Your task to perform on an android device: What's the weather today? Image 0: 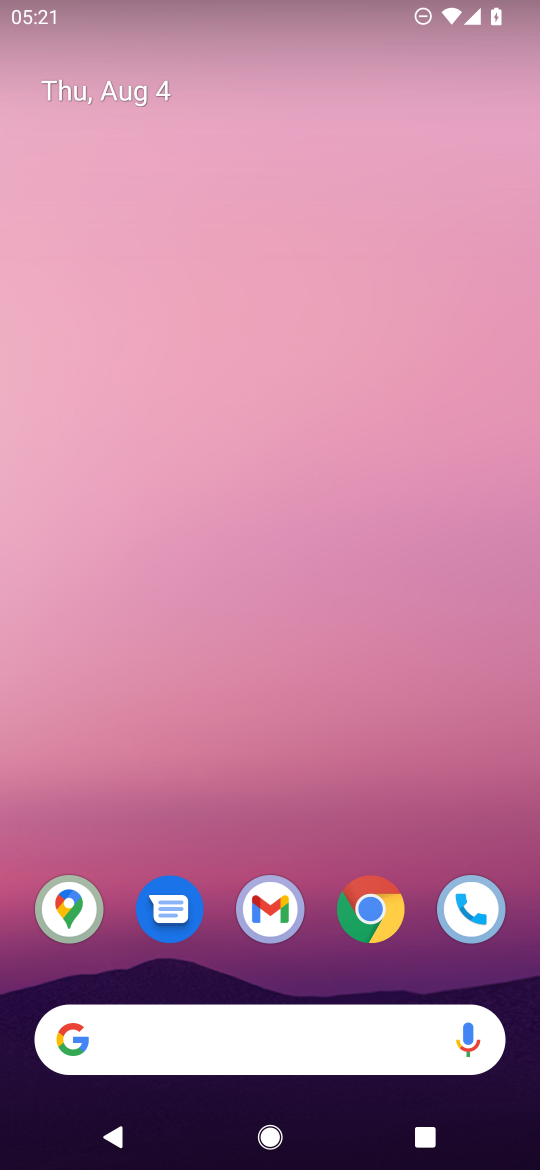
Step 0: press home button
Your task to perform on an android device: What's the weather today? Image 1: 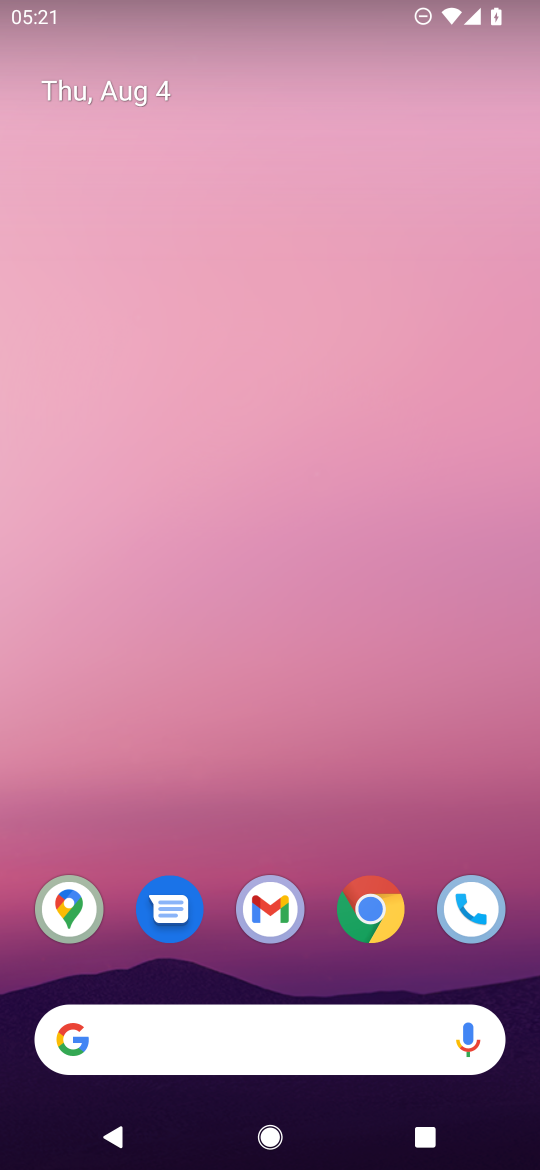
Step 1: click (75, 1040)
Your task to perform on an android device: What's the weather today? Image 2: 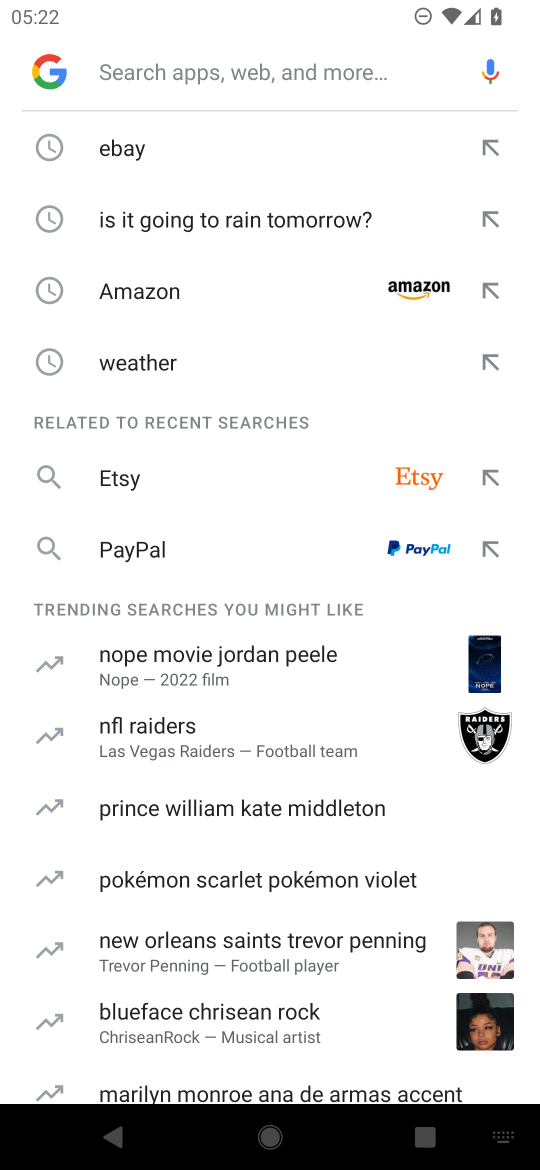
Step 2: type "weather today?"
Your task to perform on an android device: What's the weather today? Image 3: 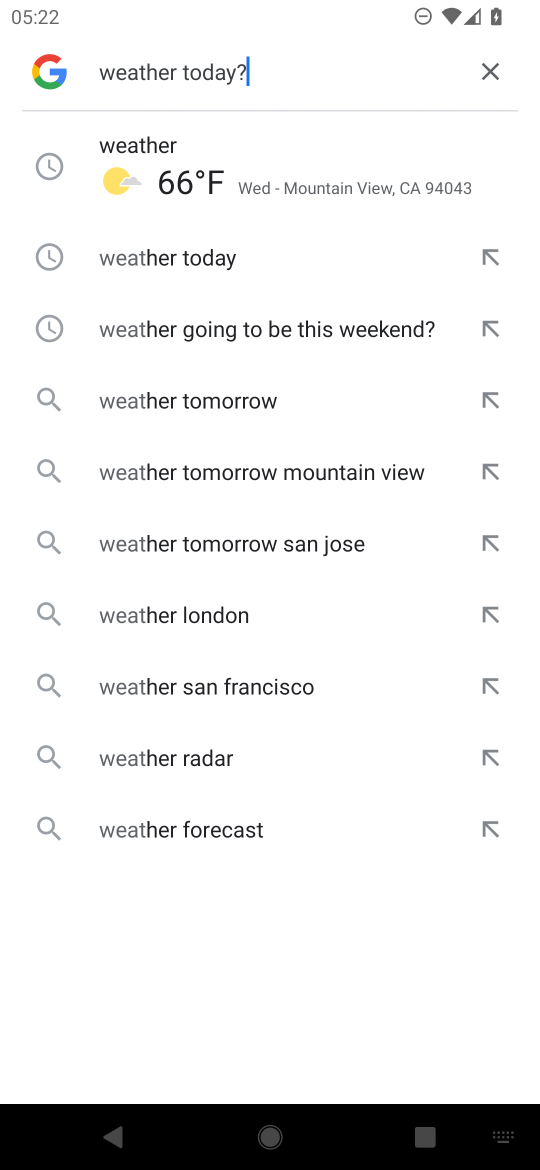
Step 3: press enter
Your task to perform on an android device: What's the weather today? Image 4: 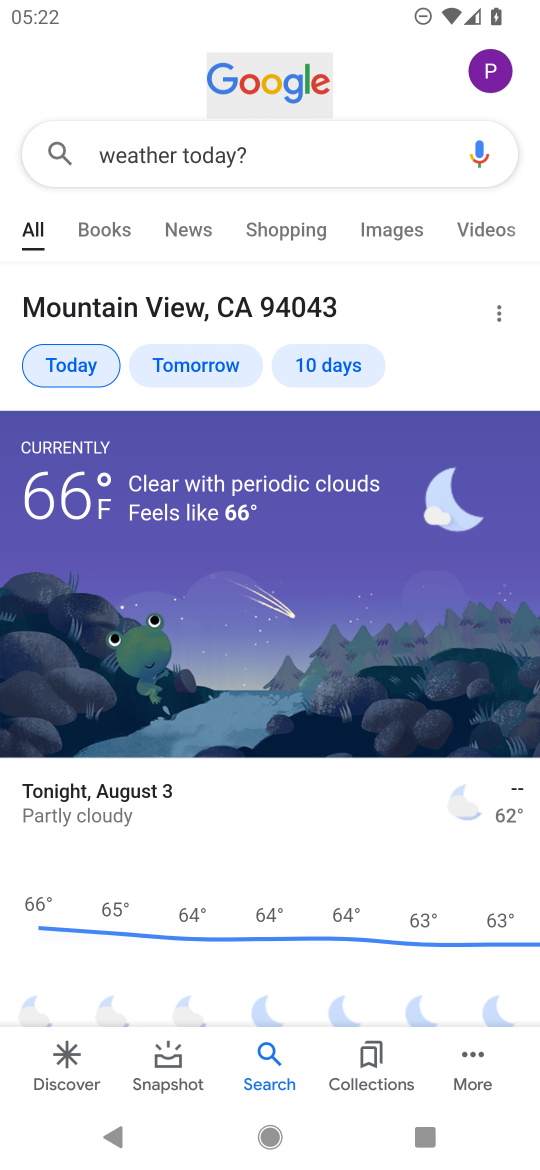
Step 4: task complete